Your task to perform on an android device: Show me productivity apps on the Play Store Image 0: 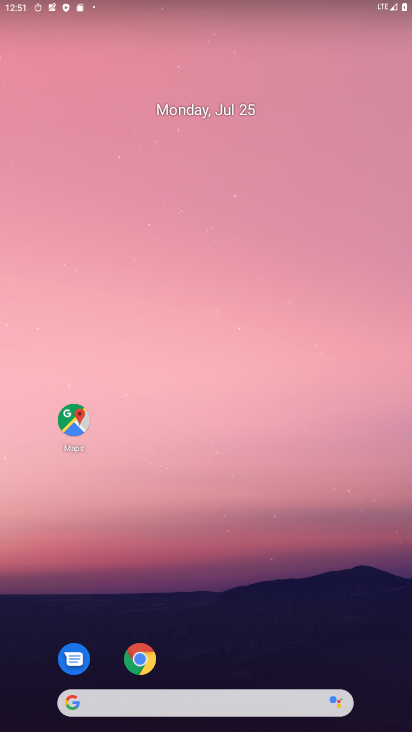
Step 0: drag from (48, 561) to (113, 160)
Your task to perform on an android device: Show me productivity apps on the Play Store Image 1: 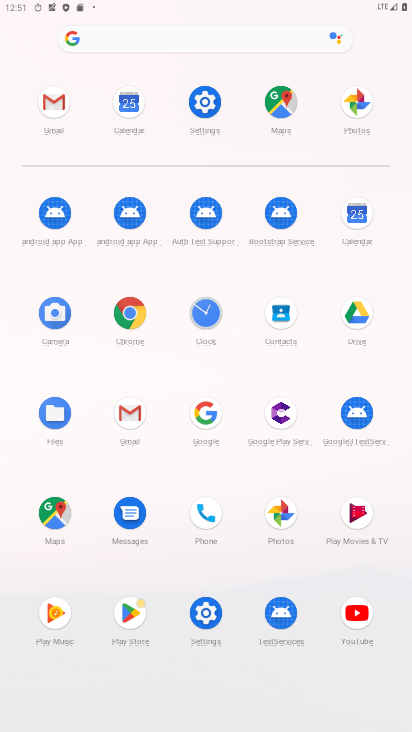
Step 1: click (126, 614)
Your task to perform on an android device: Show me productivity apps on the Play Store Image 2: 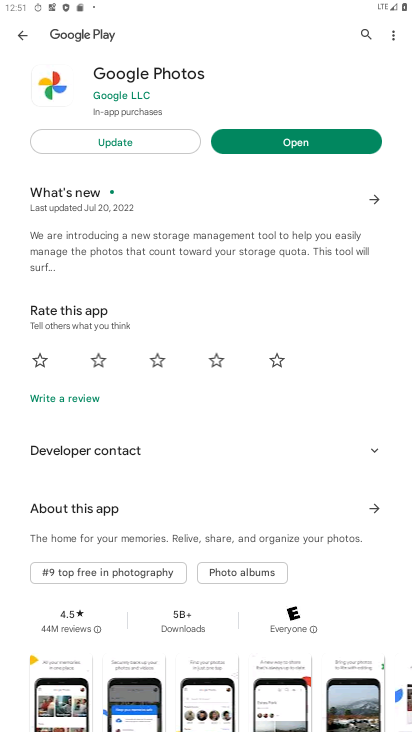
Step 2: click (19, 37)
Your task to perform on an android device: Show me productivity apps on the Play Store Image 3: 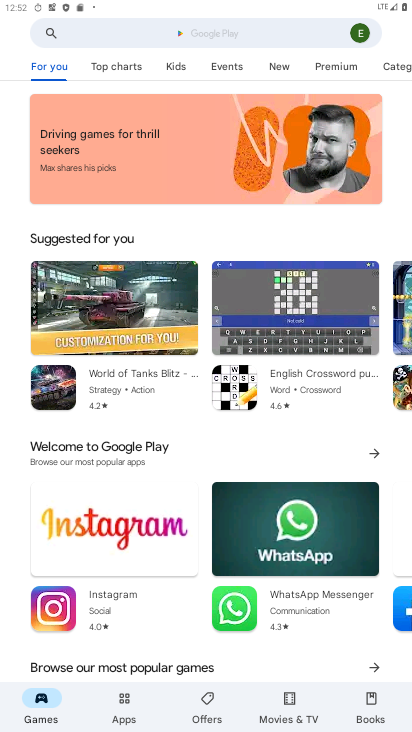
Step 3: click (96, 24)
Your task to perform on an android device: Show me productivity apps on the Play Store Image 4: 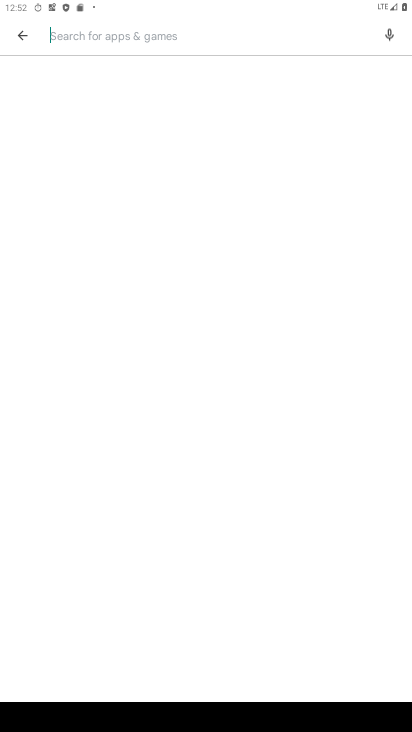
Step 4: type "productivity apps "
Your task to perform on an android device: Show me productivity apps on the Play Store Image 5: 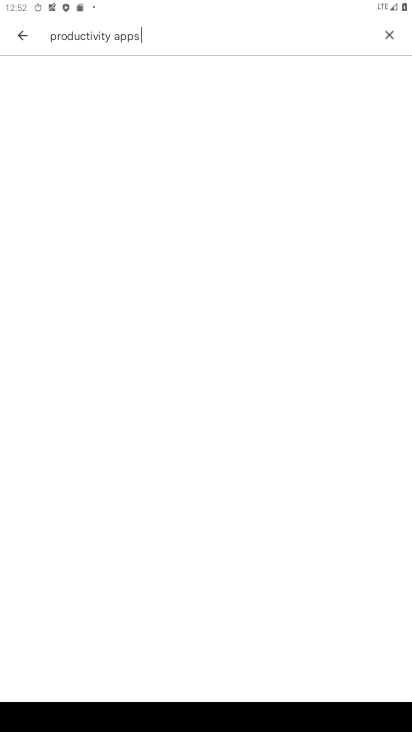
Step 5: type ""
Your task to perform on an android device: Show me productivity apps on the Play Store Image 6: 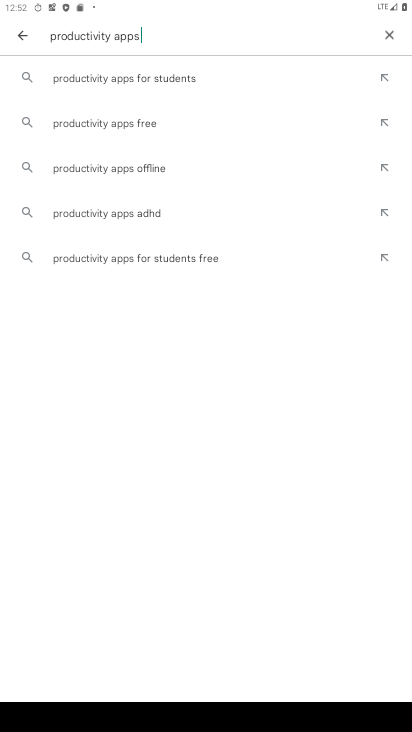
Step 6: type ""
Your task to perform on an android device: Show me productivity apps on the Play Store Image 7: 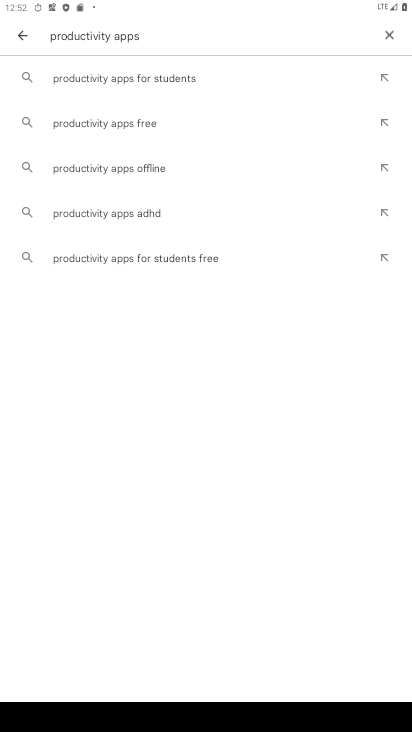
Step 7: type ""
Your task to perform on an android device: Show me productivity apps on the Play Store Image 8: 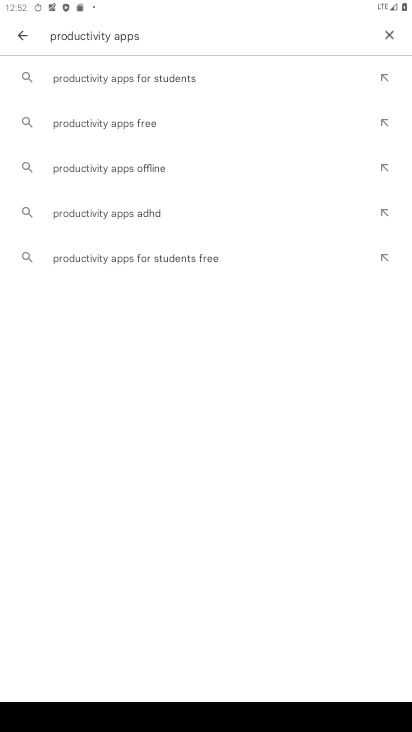
Step 8: task complete